Your task to perform on an android device: Go to eBay Image 0: 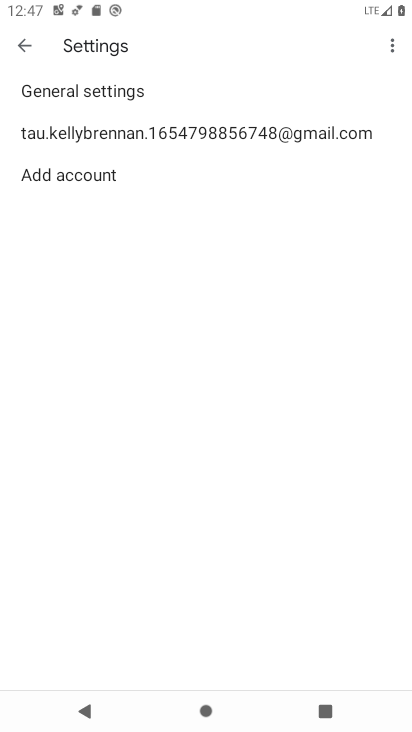
Step 0: drag from (149, 593) to (226, 145)
Your task to perform on an android device: Go to eBay Image 1: 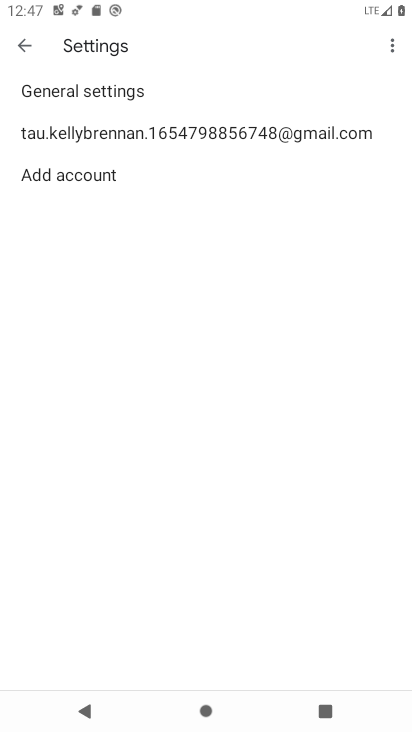
Step 1: press home button
Your task to perform on an android device: Go to eBay Image 2: 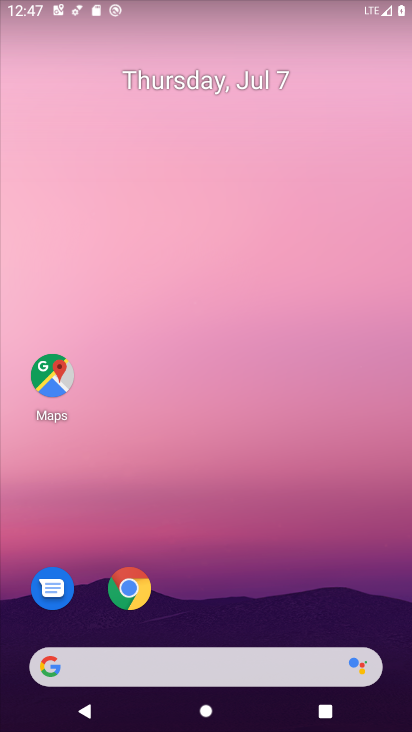
Step 2: drag from (263, 279) to (177, 1)
Your task to perform on an android device: Go to eBay Image 3: 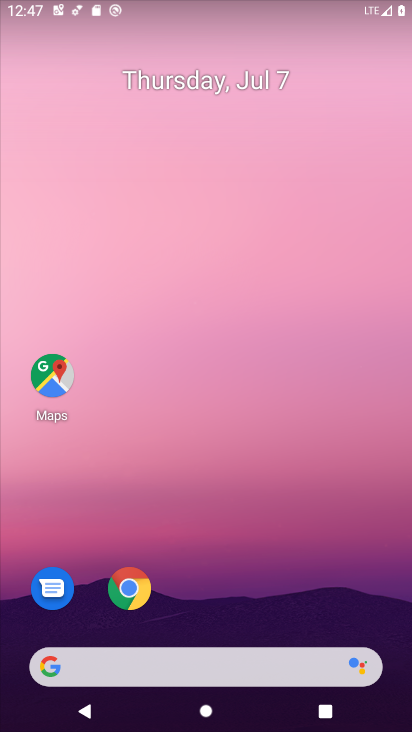
Step 3: drag from (203, 590) to (275, 282)
Your task to perform on an android device: Go to eBay Image 4: 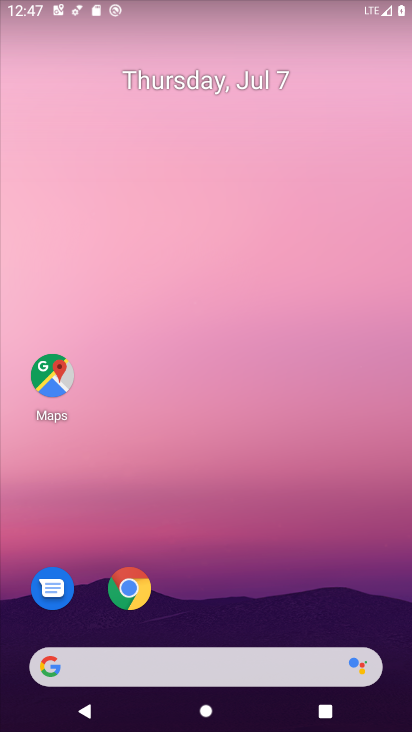
Step 4: drag from (203, 533) to (264, 60)
Your task to perform on an android device: Go to eBay Image 5: 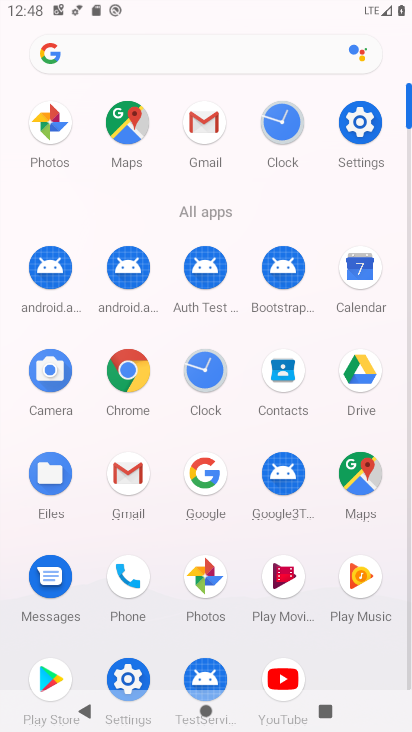
Step 5: drag from (191, 413) to (200, 198)
Your task to perform on an android device: Go to eBay Image 6: 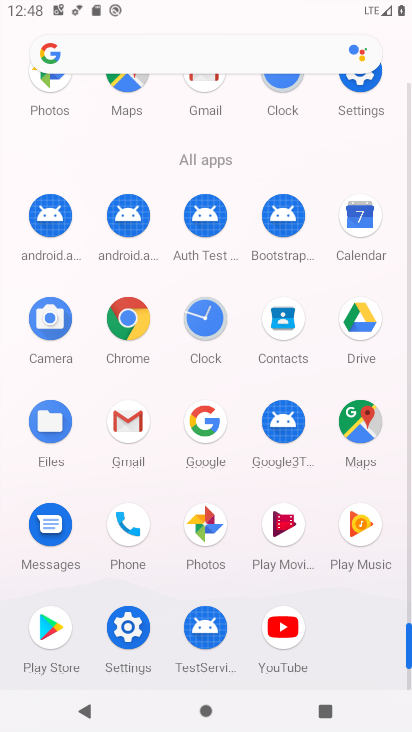
Step 6: click (124, 320)
Your task to perform on an android device: Go to eBay Image 7: 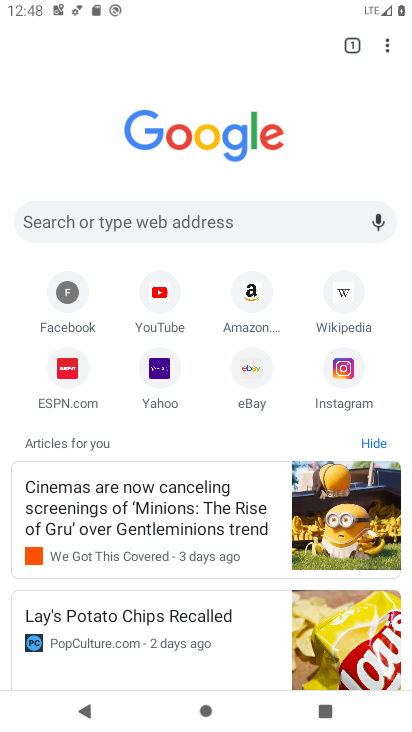
Step 7: click (263, 366)
Your task to perform on an android device: Go to eBay Image 8: 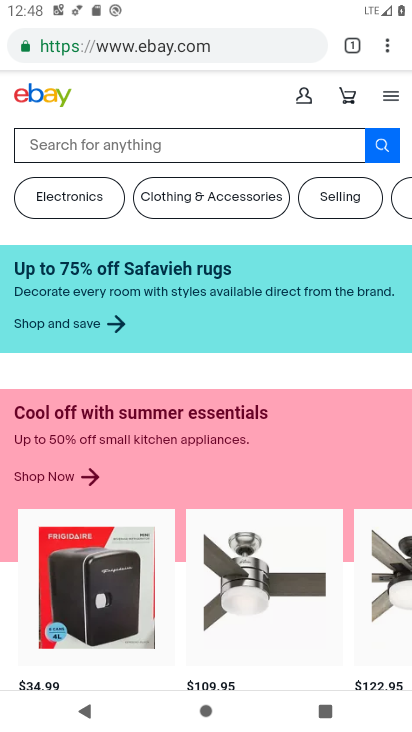
Step 8: task complete